Your task to perform on an android device: toggle show notifications on the lock screen Image 0: 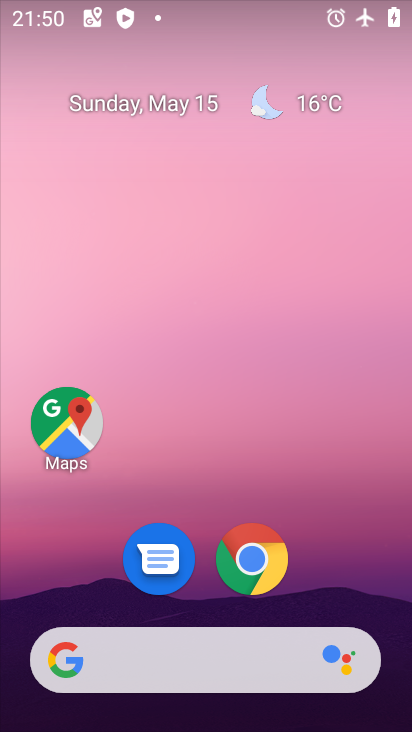
Step 0: drag from (300, 447) to (218, 105)
Your task to perform on an android device: toggle show notifications on the lock screen Image 1: 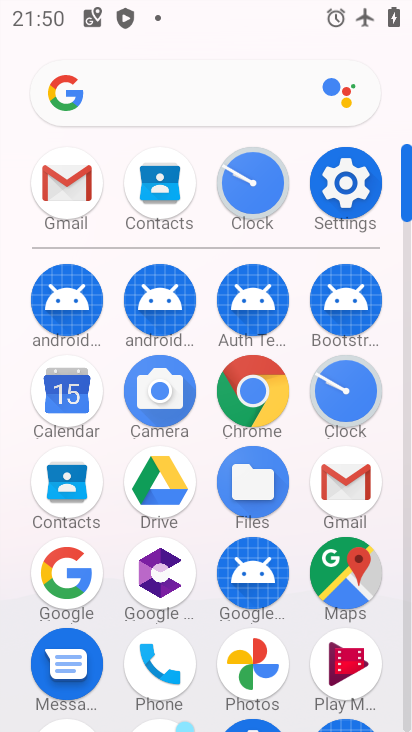
Step 1: click (347, 184)
Your task to perform on an android device: toggle show notifications on the lock screen Image 2: 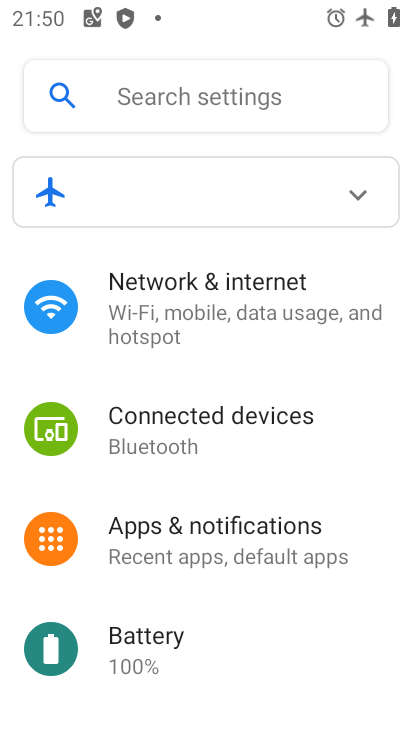
Step 2: click (251, 523)
Your task to perform on an android device: toggle show notifications on the lock screen Image 3: 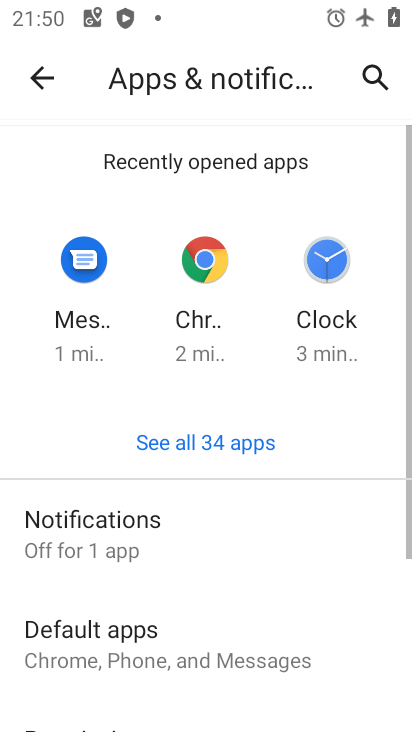
Step 3: drag from (269, 516) to (215, 212)
Your task to perform on an android device: toggle show notifications on the lock screen Image 4: 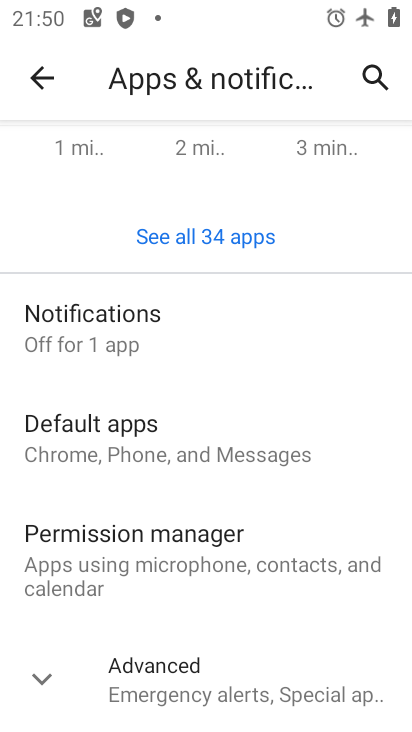
Step 4: drag from (241, 495) to (215, 248)
Your task to perform on an android device: toggle show notifications on the lock screen Image 5: 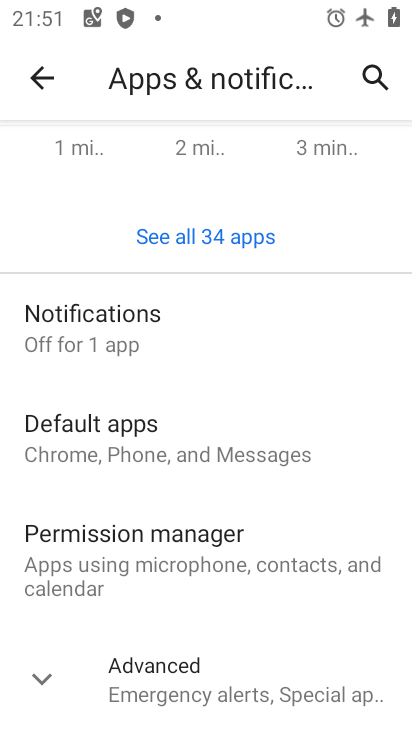
Step 5: click (99, 315)
Your task to perform on an android device: toggle show notifications on the lock screen Image 6: 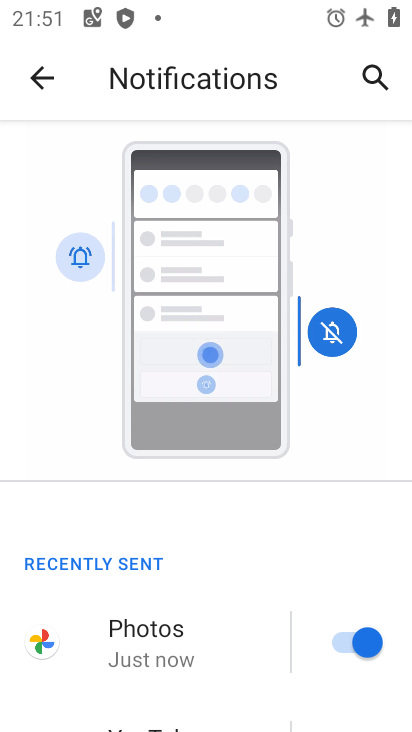
Step 6: drag from (235, 566) to (197, 97)
Your task to perform on an android device: toggle show notifications on the lock screen Image 7: 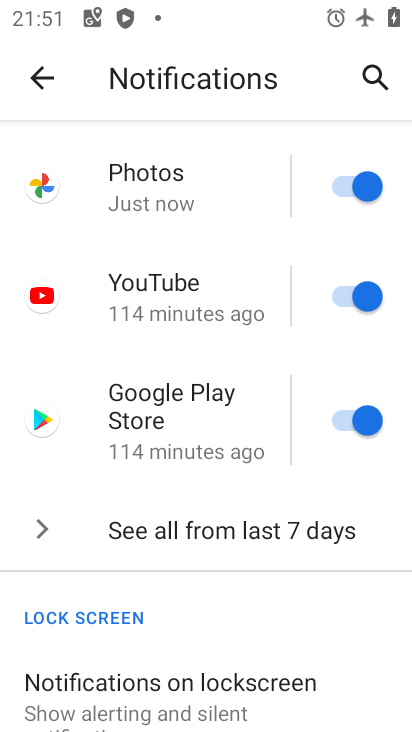
Step 7: drag from (221, 587) to (187, 167)
Your task to perform on an android device: toggle show notifications on the lock screen Image 8: 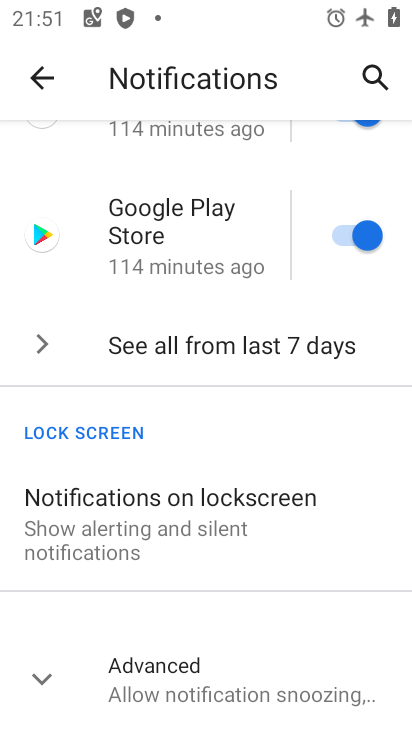
Step 8: click (184, 493)
Your task to perform on an android device: toggle show notifications on the lock screen Image 9: 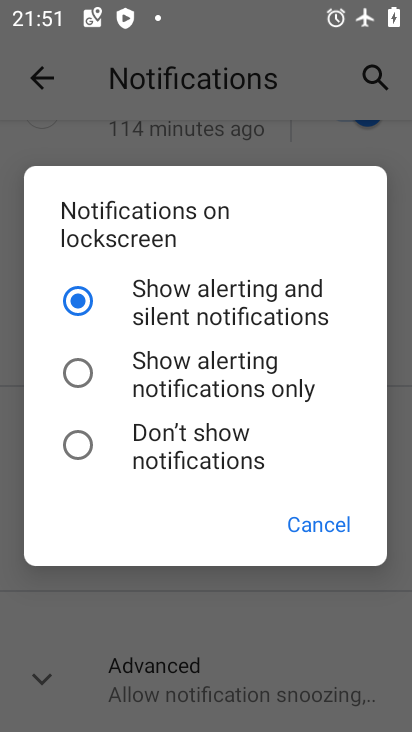
Step 9: click (73, 437)
Your task to perform on an android device: toggle show notifications on the lock screen Image 10: 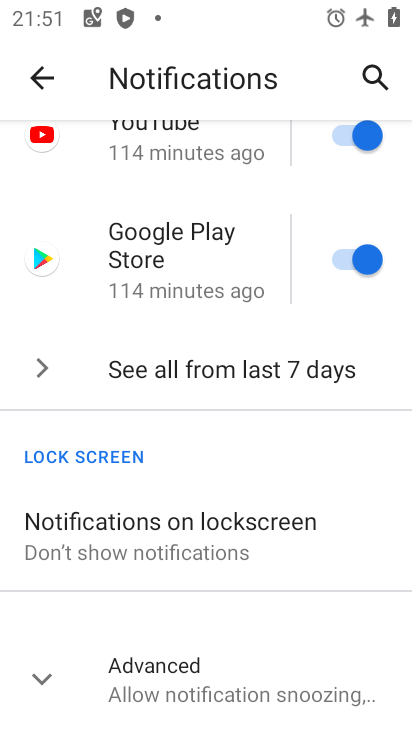
Step 10: task complete